Your task to perform on an android device: When is my next meeting? Image 0: 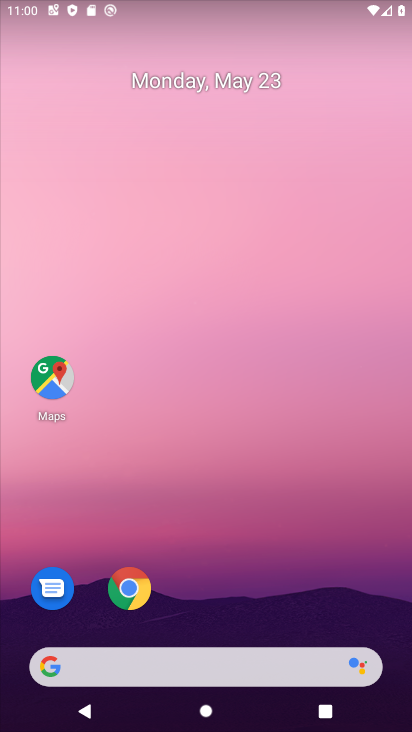
Step 0: drag from (261, 536) to (148, 154)
Your task to perform on an android device: When is my next meeting? Image 1: 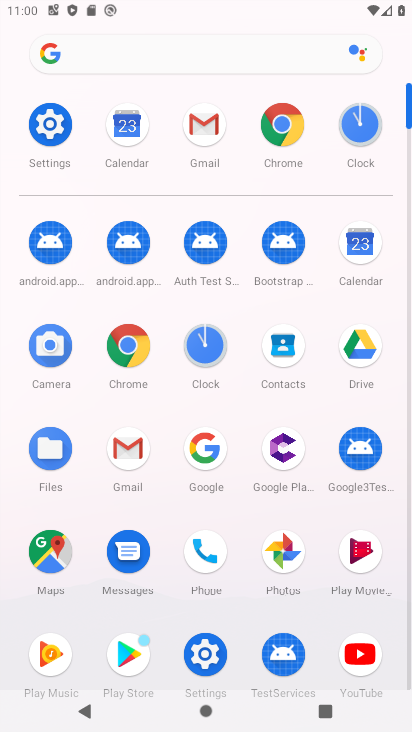
Step 1: click (355, 237)
Your task to perform on an android device: When is my next meeting? Image 2: 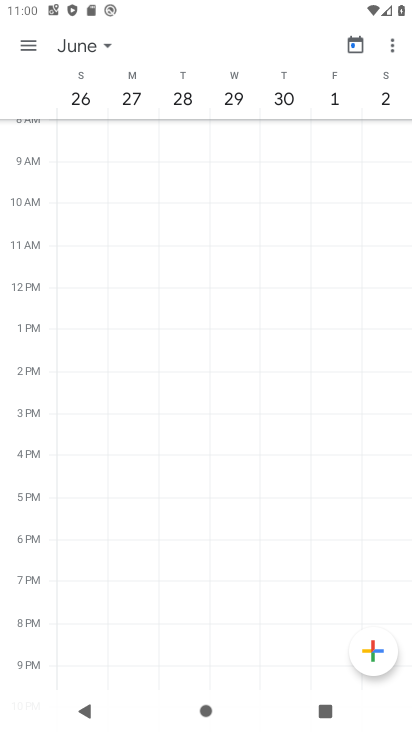
Step 2: click (89, 44)
Your task to perform on an android device: When is my next meeting? Image 3: 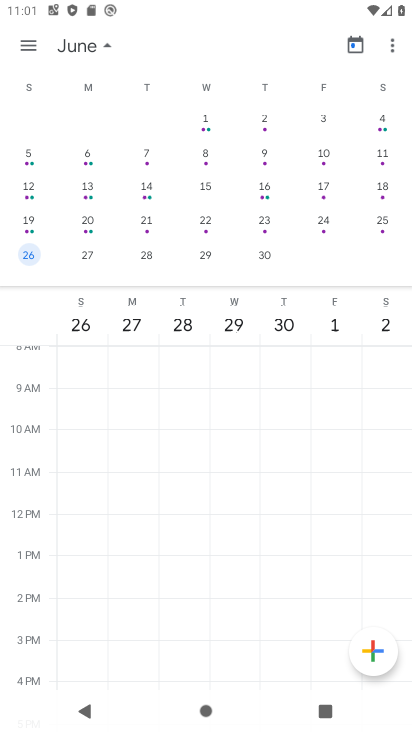
Step 3: drag from (60, 202) to (267, 183)
Your task to perform on an android device: When is my next meeting? Image 4: 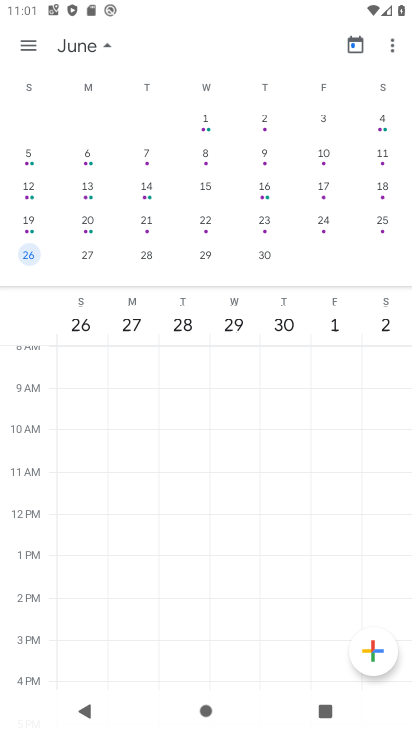
Step 4: drag from (44, 174) to (368, 167)
Your task to perform on an android device: When is my next meeting? Image 5: 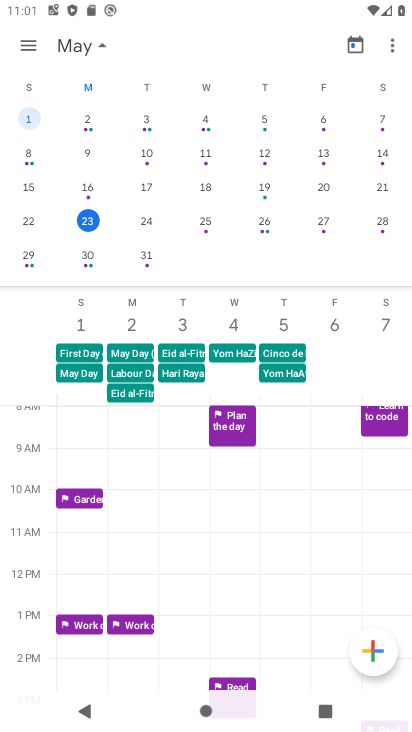
Step 5: click (93, 223)
Your task to perform on an android device: When is my next meeting? Image 6: 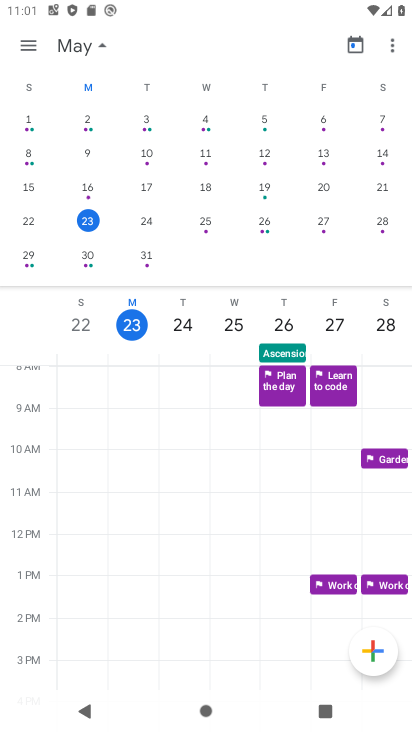
Step 6: task complete